Your task to perform on an android device: Open Chrome and go to settings Image 0: 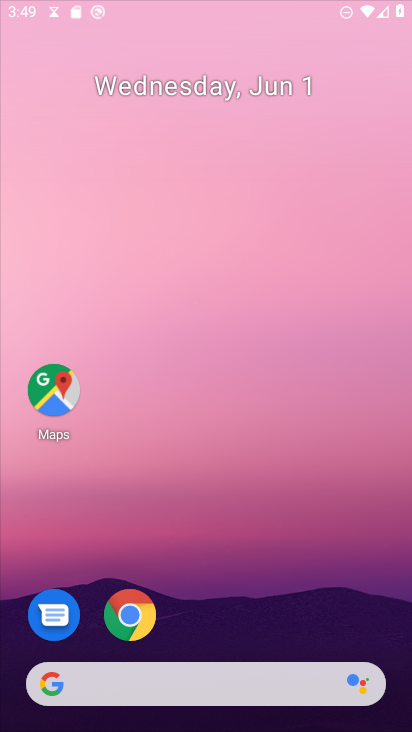
Step 0: press home button
Your task to perform on an android device: Open Chrome and go to settings Image 1: 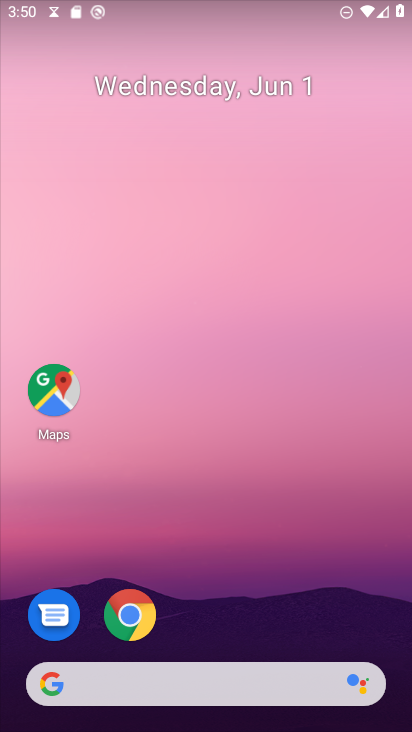
Step 1: click (128, 612)
Your task to perform on an android device: Open Chrome and go to settings Image 2: 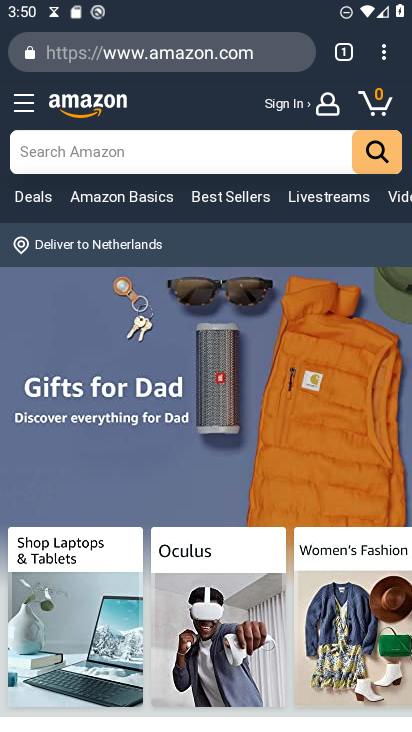
Step 2: click (389, 47)
Your task to perform on an android device: Open Chrome and go to settings Image 3: 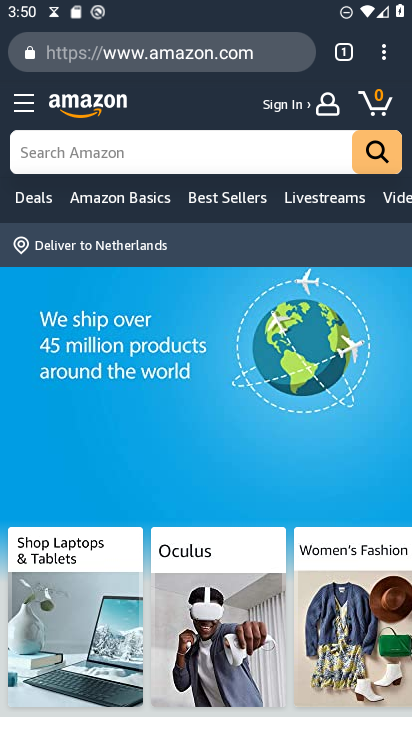
Step 3: click (388, 47)
Your task to perform on an android device: Open Chrome and go to settings Image 4: 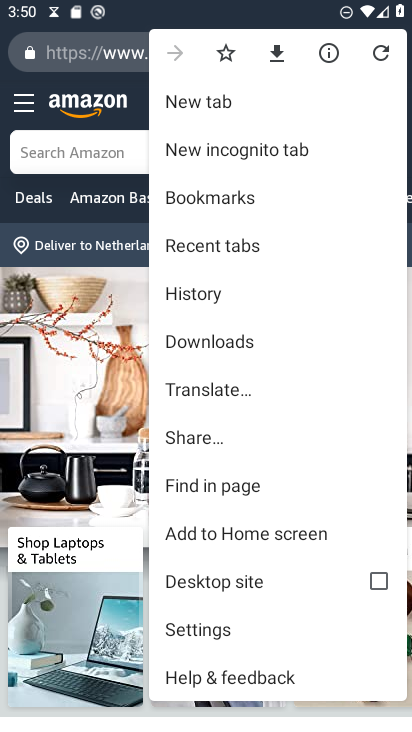
Step 4: click (243, 628)
Your task to perform on an android device: Open Chrome and go to settings Image 5: 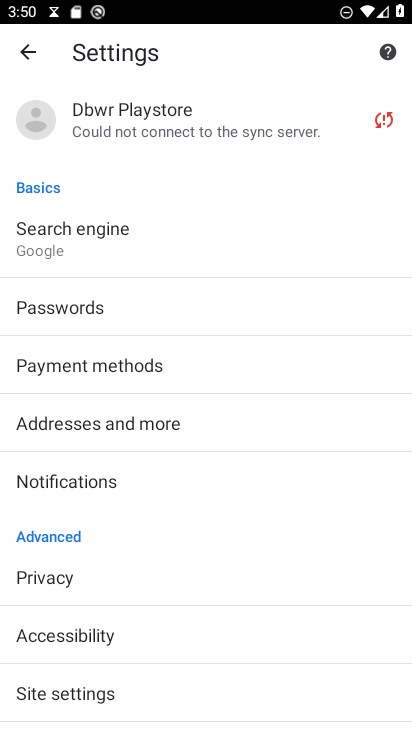
Step 5: task complete